Your task to perform on an android device: Open accessibility settings Image 0: 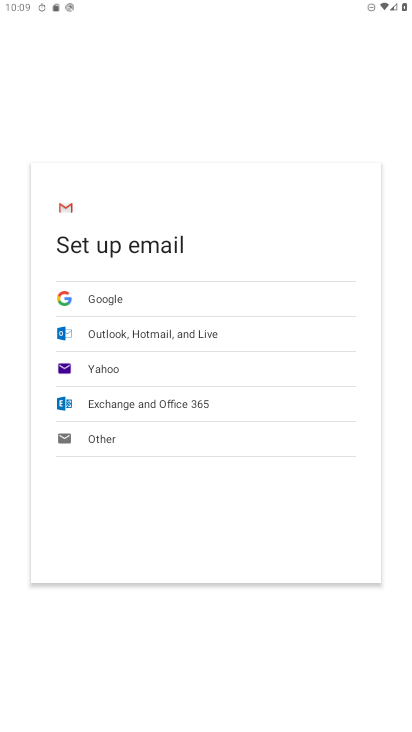
Step 0: press home button
Your task to perform on an android device: Open accessibility settings Image 1: 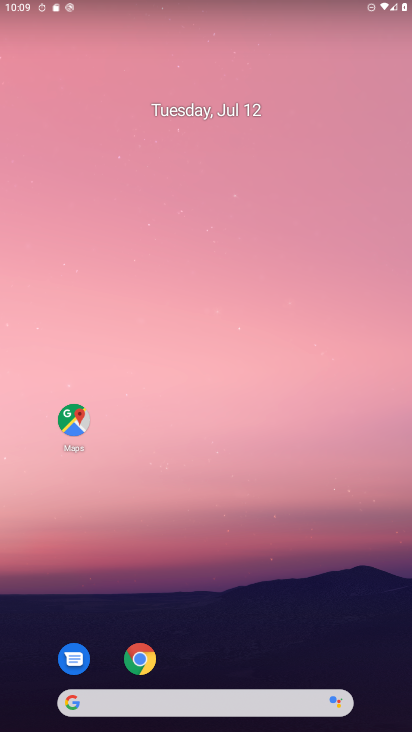
Step 1: click (212, 729)
Your task to perform on an android device: Open accessibility settings Image 2: 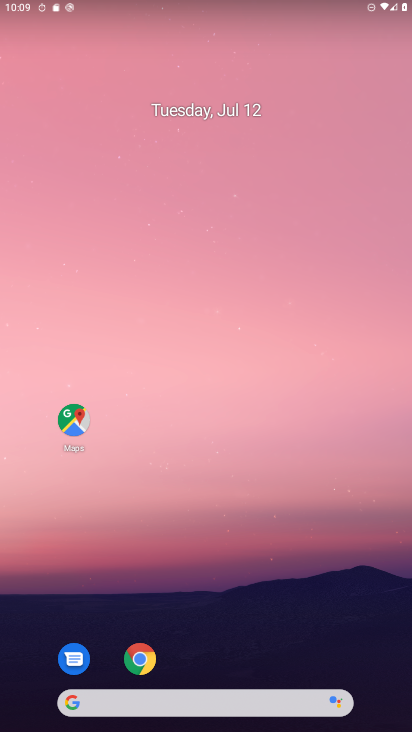
Step 2: drag from (222, 305) to (221, 21)
Your task to perform on an android device: Open accessibility settings Image 3: 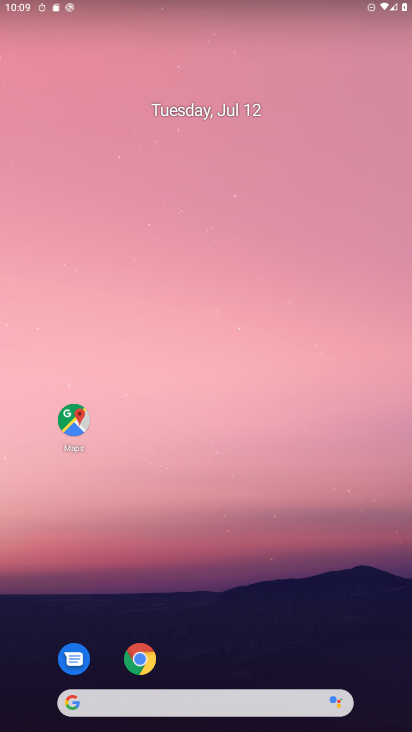
Step 3: drag from (302, 706) to (299, 604)
Your task to perform on an android device: Open accessibility settings Image 4: 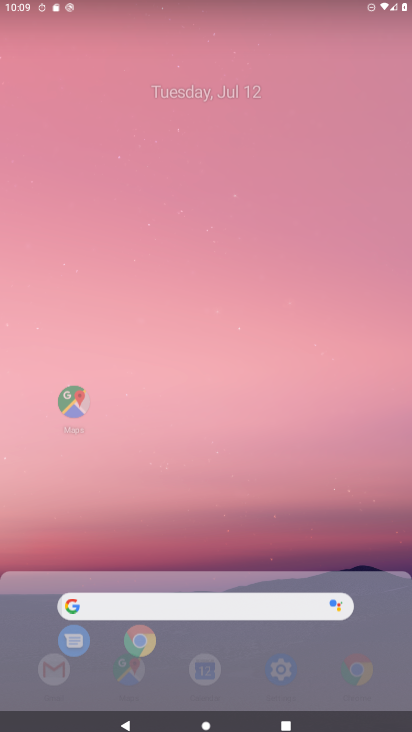
Step 4: drag from (290, 169) to (288, 81)
Your task to perform on an android device: Open accessibility settings Image 5: 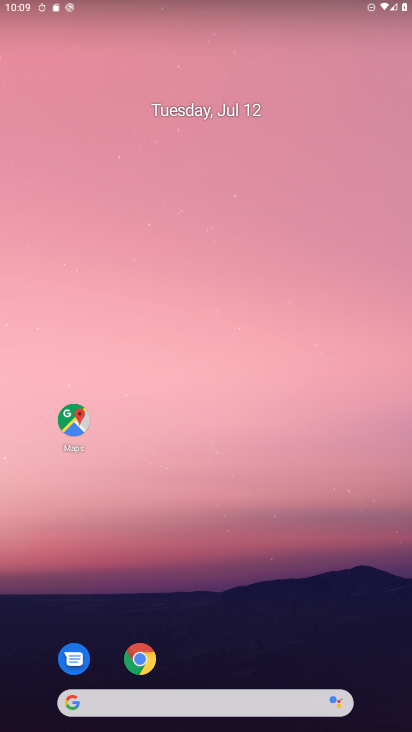
Step 5: drag from (238, 719) to (206, 126)
Your task to perform on an android device: Open accessibility settings Image 6: 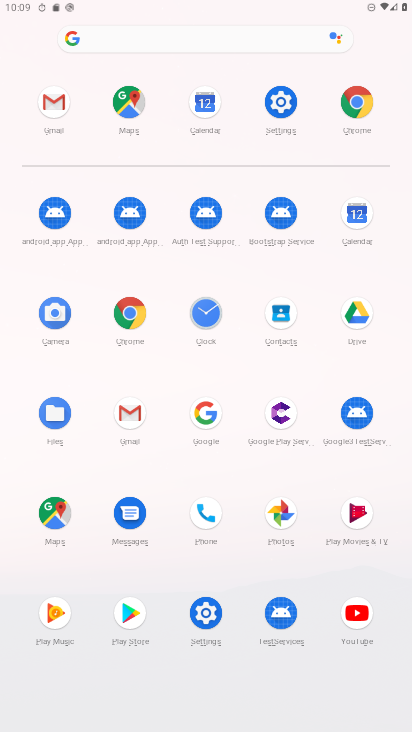
Step 6: click (282, 98)
Your task to perform on an android device: Open accessibility settings Image 7: 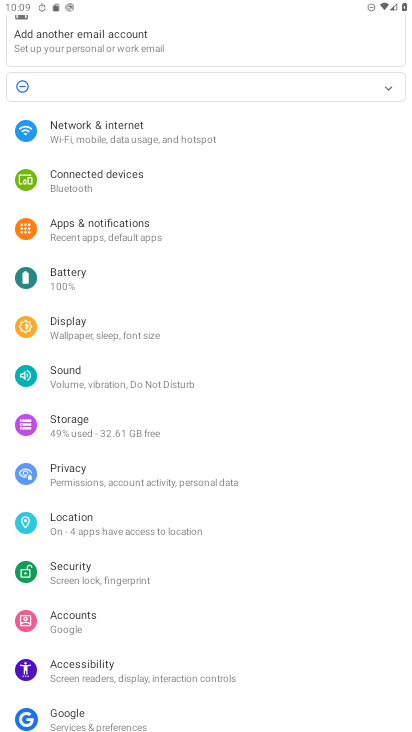
Step 7: click (67, 663)
Your task to perform on an android device: Open accessibility settings Image 8: 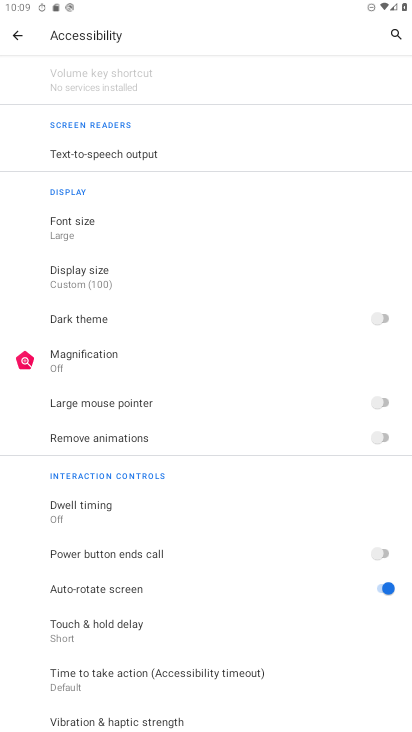
Step 8: task complete